Your task to perform on an android device: Do I have any events tomorrow? Image 0: 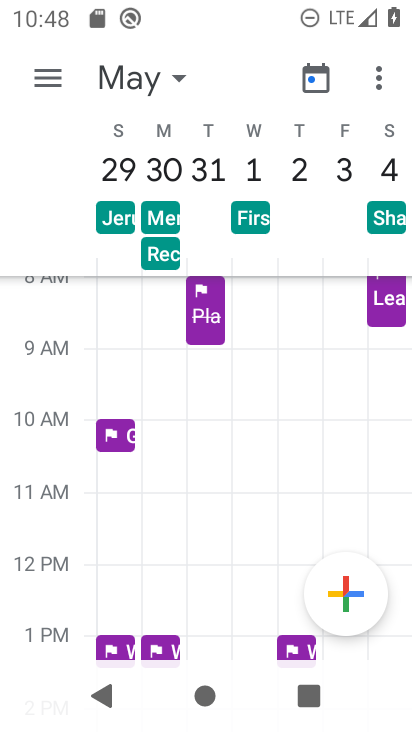
Step 0: click (130, 77)
Your task to perform on an android device: Do I have any events tomorrow? Image 1: 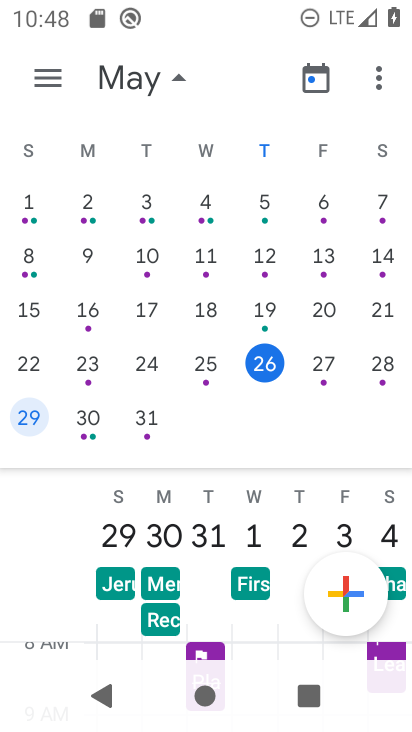
Step 1: click (320, 364)
Your task to perform on an android device: Do I have any events tomorrow? Image 2: 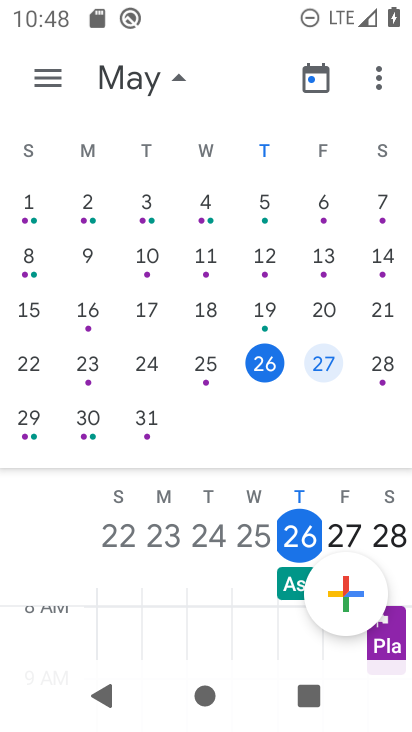
Step 2: click (37, 80)
Your task to perform on an android device: Do I have any events tomorrow? Image 3: 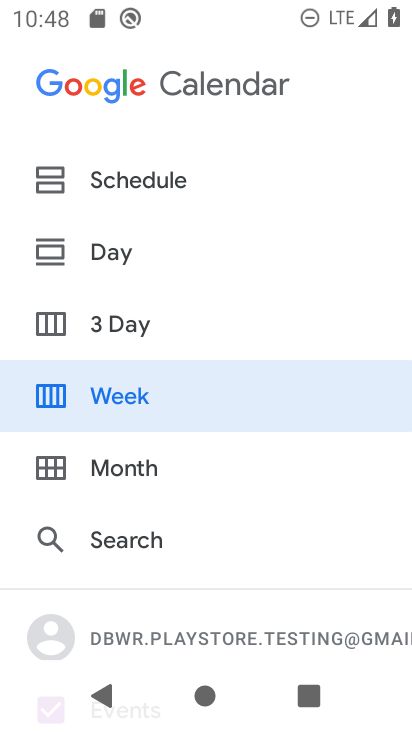
Step 3: click (126, 165)
Your task to perform on an android device: Do I have any events tomorrow? Image 4: 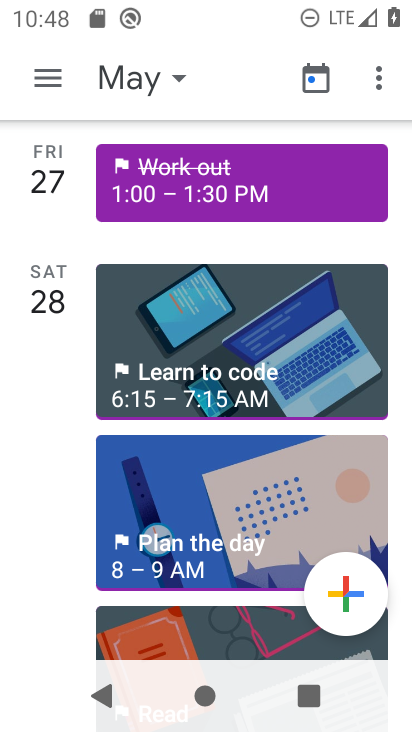
Step 4: task complete